Your task to perform on an android device: move an email to a new category in the gmail app Image 0: 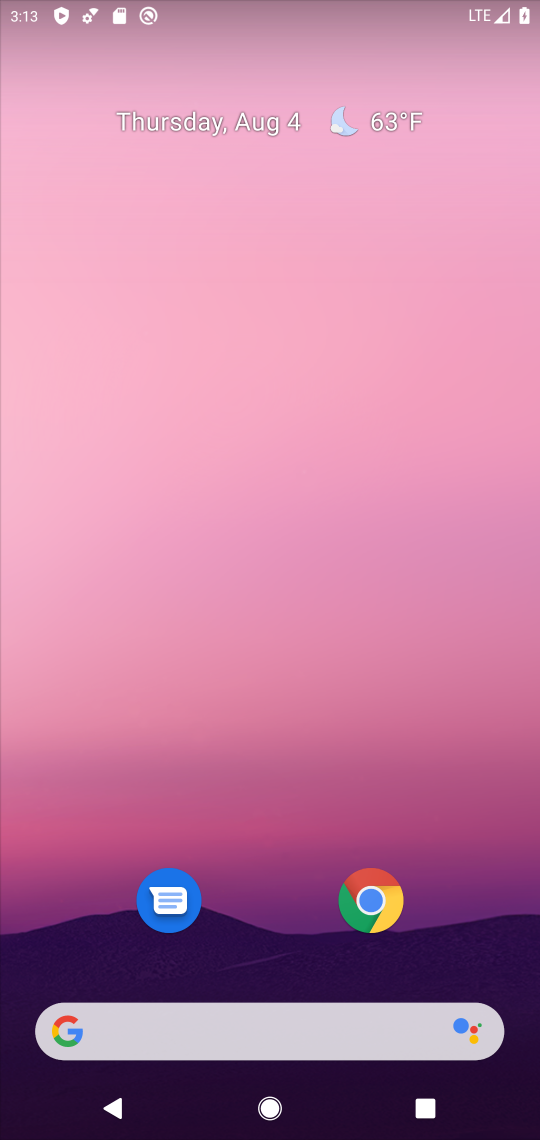
Step 0: drag from (531, 950) to (372, 183)
Your task to perform on an android device: move an email to a new category in the gmail app Image 1: 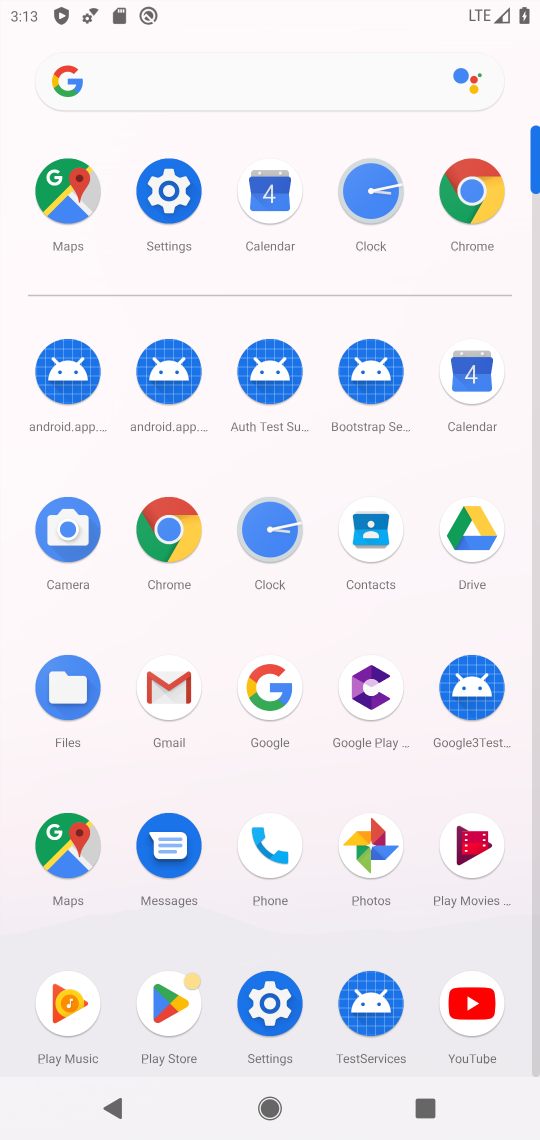
Step 1: click (160, 689)
Your task to perform on an android device: move an email to a new category in the gmail app Image 2: 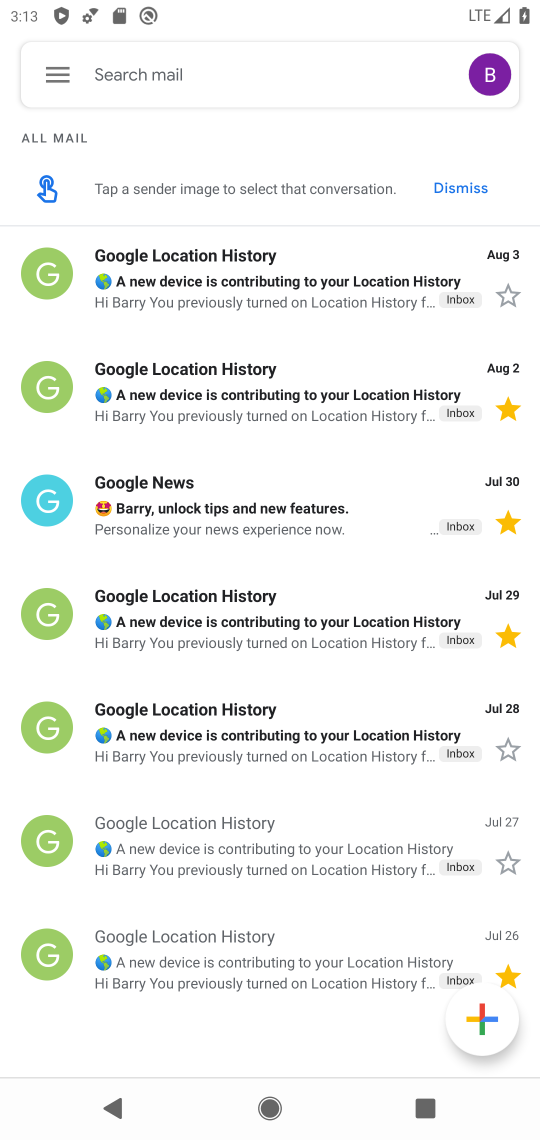
Step 2: click (68, 66)
Your task to perform on an android device: move an email to a new category in the gmail app Image 3: 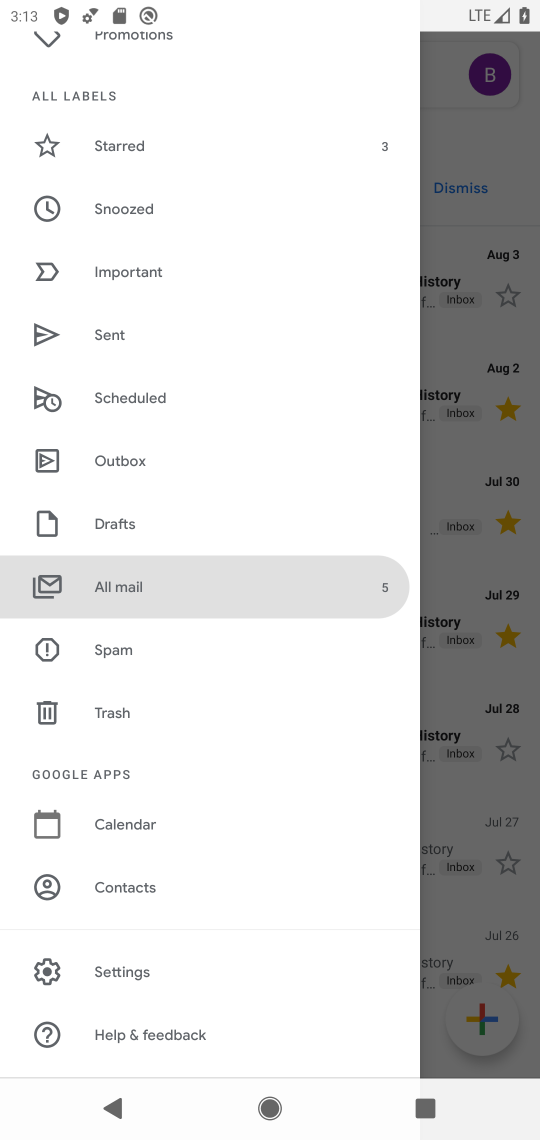
Step 3: click (284, 579)
Your task to perform on an android device: move an email to a new category in the gmail app Image 4: 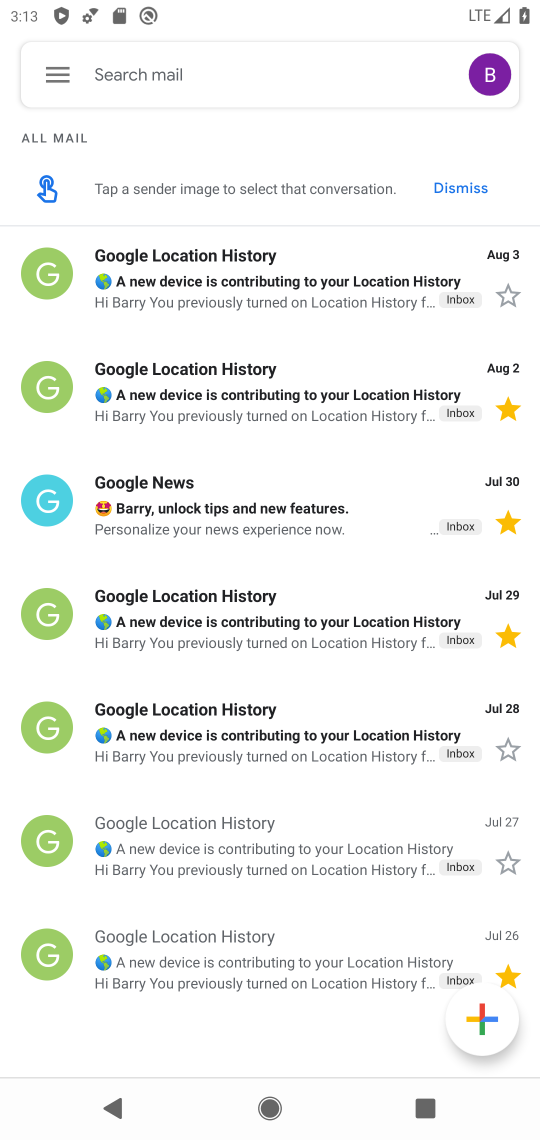
Step 4: click (240, 529)
Your task to perform on an android device: move an email to a new category in the gmail app Image 5: 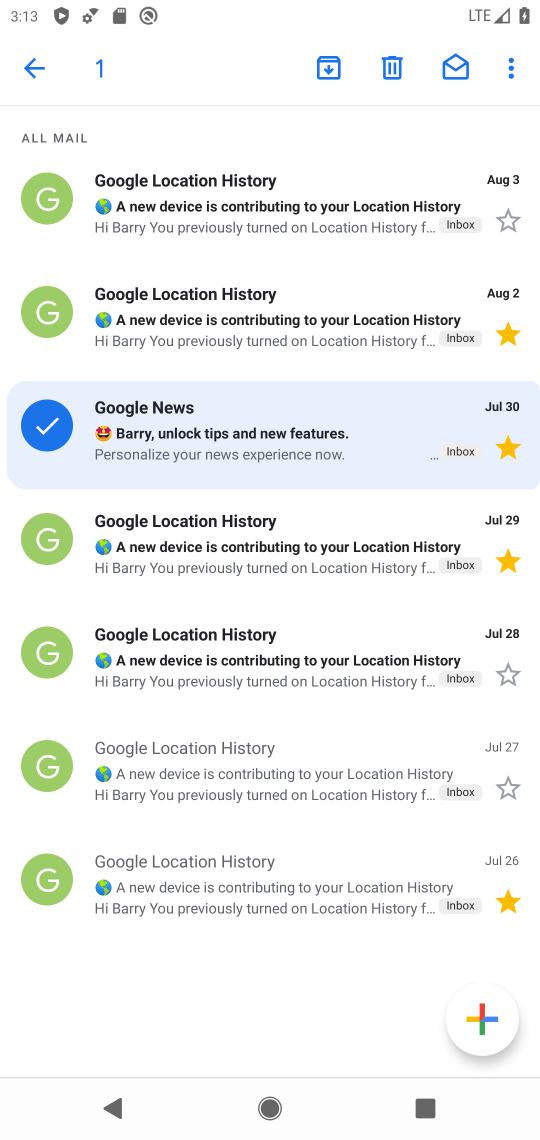
Step 5: click (521, 80)
Your task to perform on an android device: move an email to a new category in the gmail app Image 6: 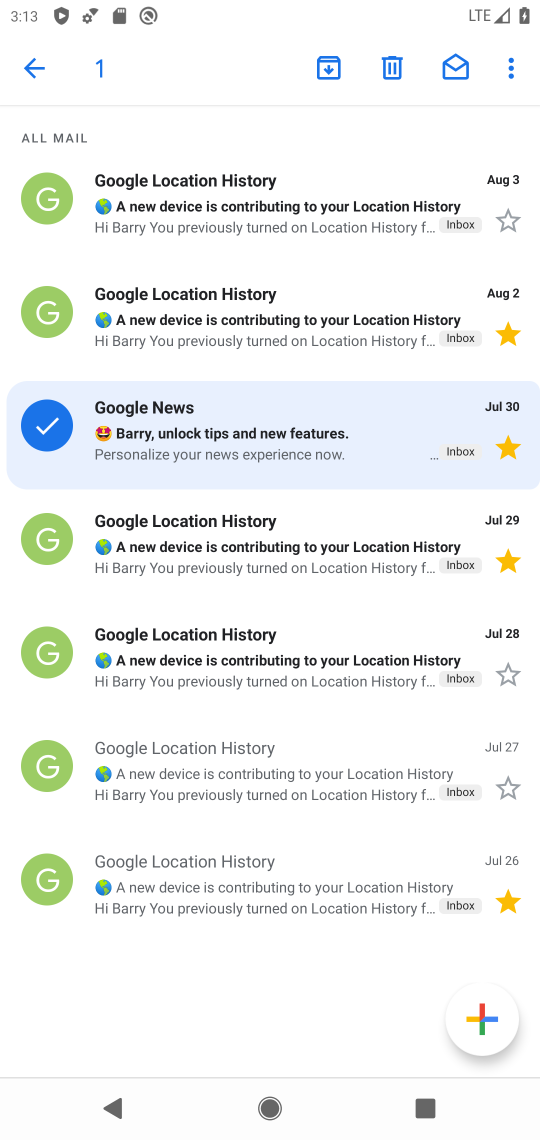
Step 6: click (514, 76)
Your task to perform on an android device: move an email to a new category in the gmail app Image 7: 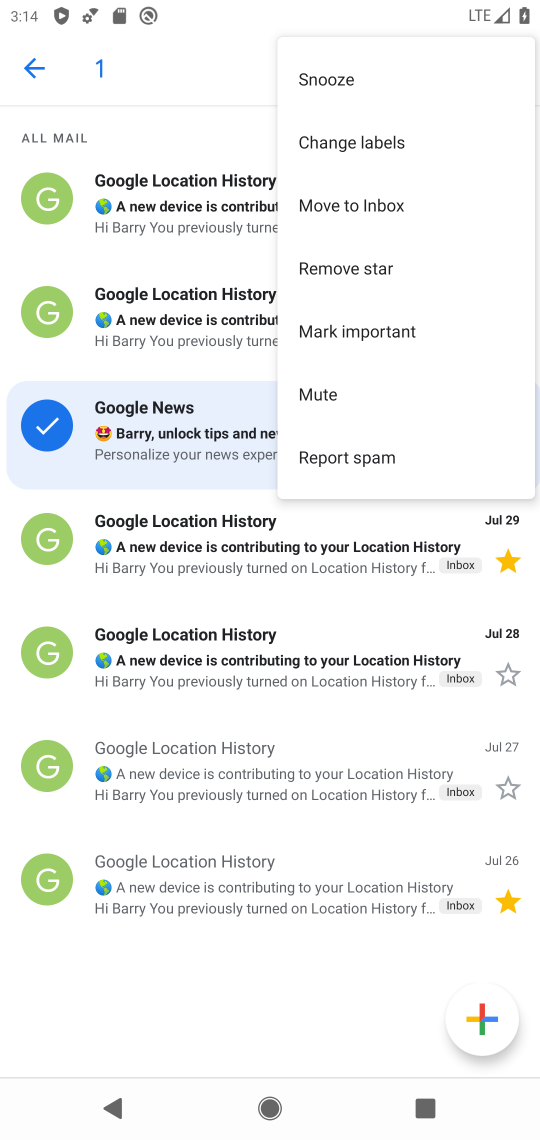
Step 7: click (431, 197)
Your task to perform on an android device: move an email to a new category in the gmail app Image 8: 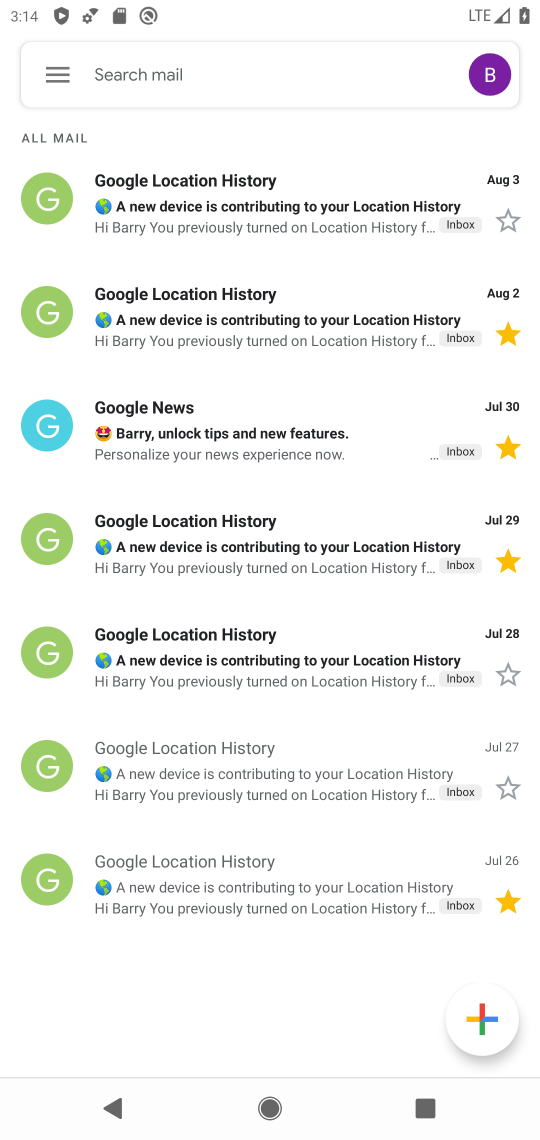
Step 8: task complete